Your task to perform on an android device: choose inbox layout in the gmail app Image 0: 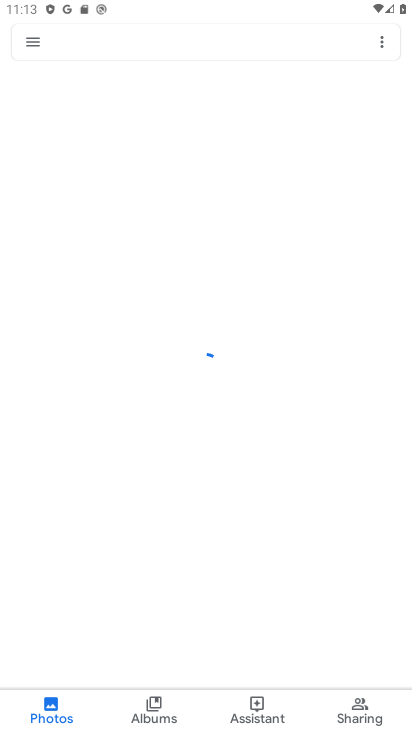
Step 0: press home button
Your task to perform on an android device: choose inbox layout in the gmail app Image 1: 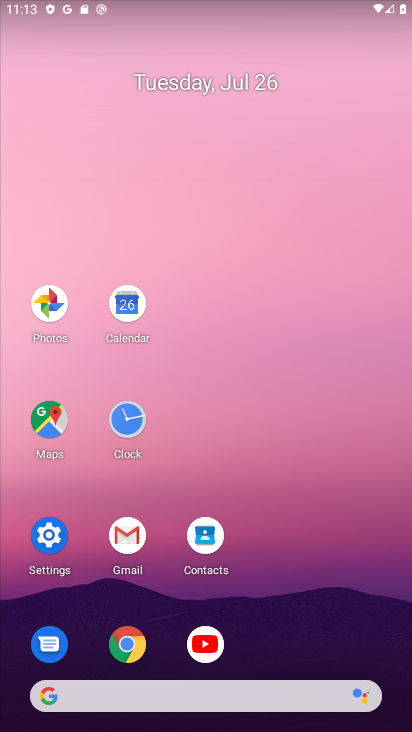
Step 1: click (129, 538)
Your task to perform on an android device: choose inbox layout in the gmail app Image 2: 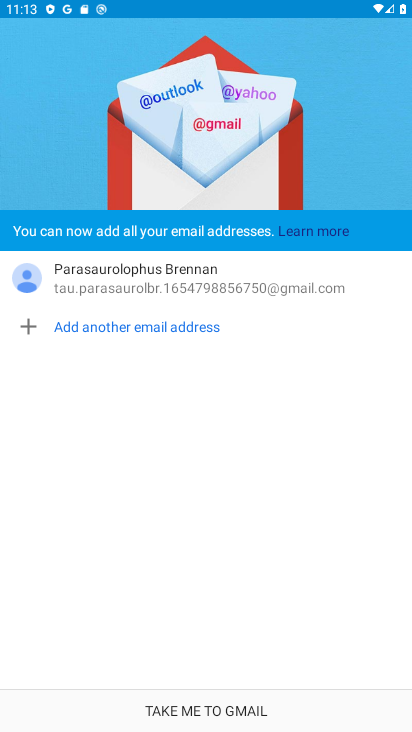
Step 2: click (205, 713)
Your task to perform on an android device: choose inbox layout in the gmail app Image 3: 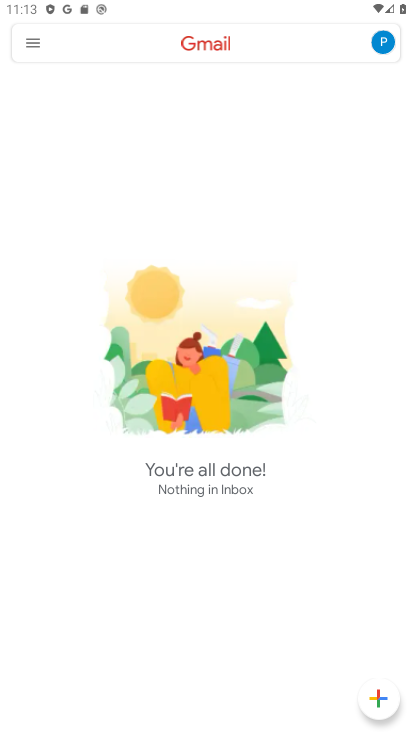
Step 3: click (29, 39)
Your task to perform on an android device: choose inbox layout in the gmail app Image 4: 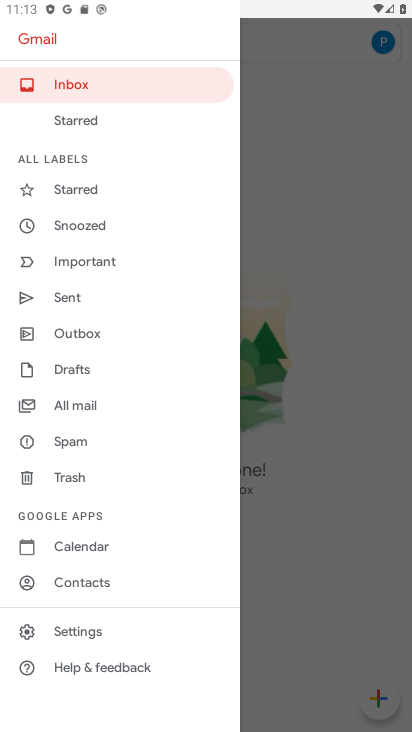
Step 4: click (71, 399)
Your task to perform on an android device: choose inbox layout in the gmail app Image 5: 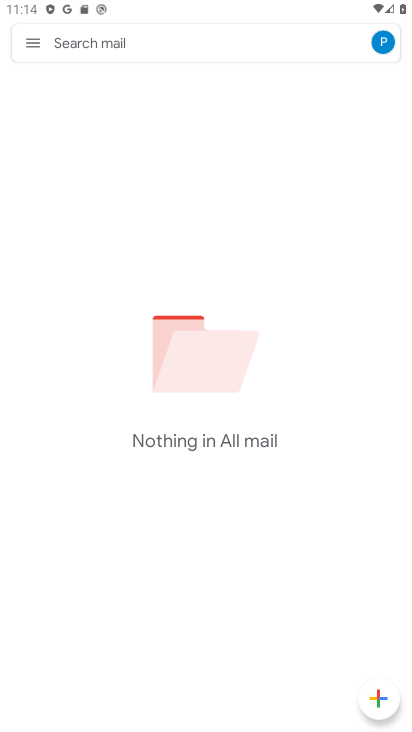
Step 5: task complete